Your task to perform on an android device: Open notification settings Image 0: 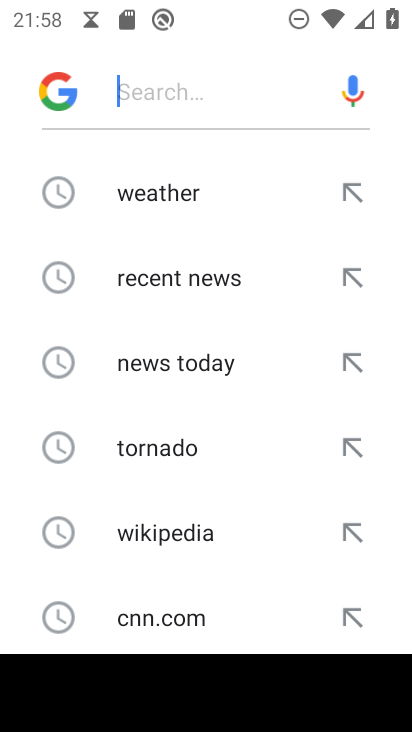
Step 0: press home button
Your task to perform on an android device: Open notification settings Image 1: 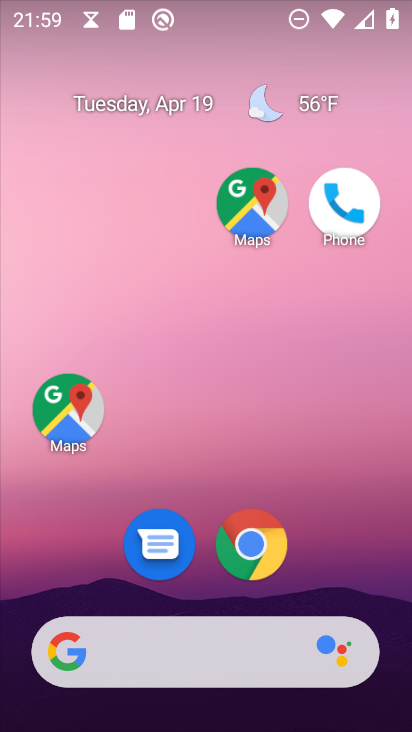
Step 1: drag from (174, 630) to (350, 70)
Your task to perform on an android device: Open notification settings Image 2: 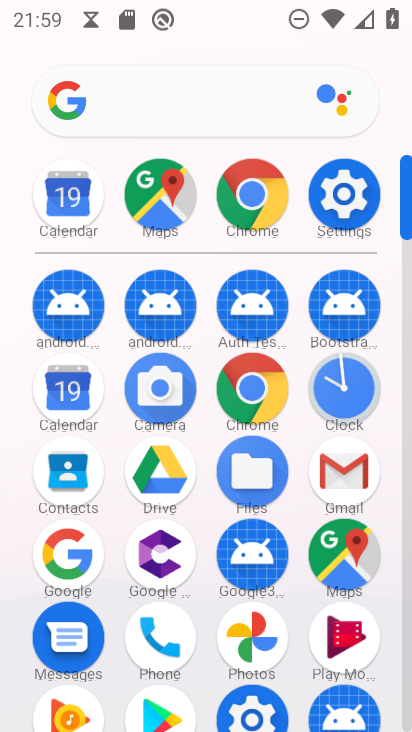
Step 2: click (337, 201)
Your task to perform on an android device: Open notification settings Image 3: 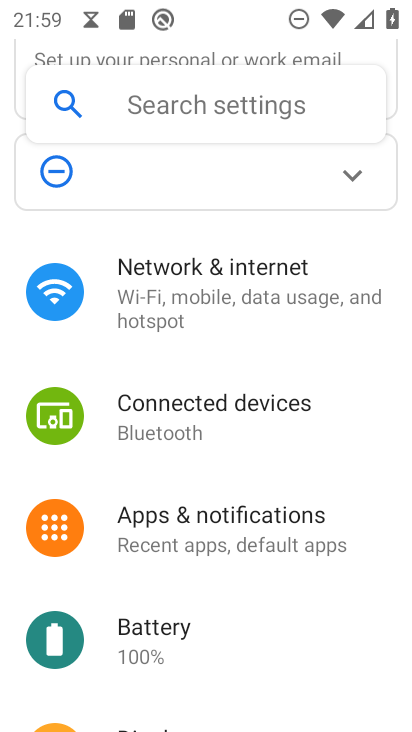
Step 3: click (224, 522)
Your task to perform on an android device: Open notification settings Image 4: 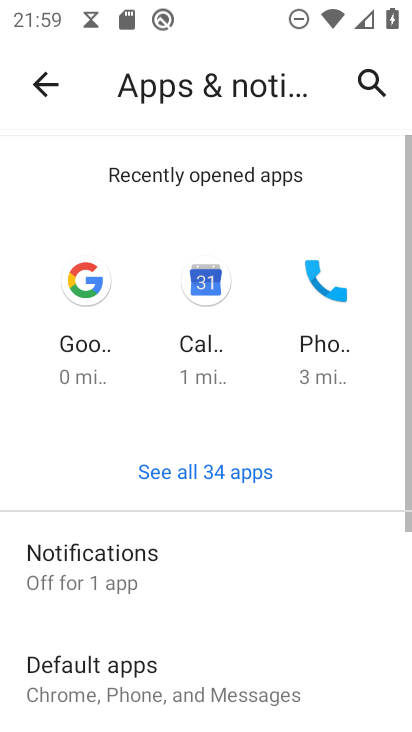
Step 4: drag from (180, 563) to (300, 124)
Your task to perform on an android device: Open notification settings Image 5: 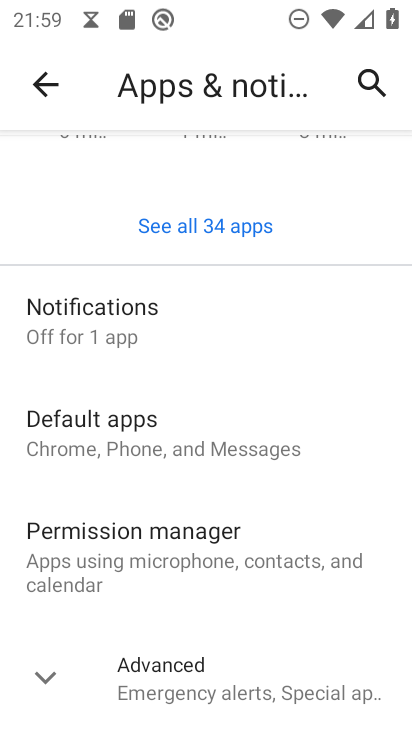
Step 5: click (69, 321)
Your task to perform on an android device: Open notification settings Image 6: 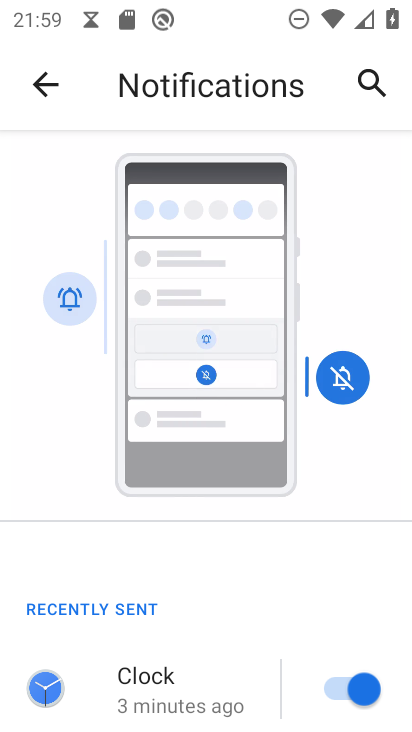
Step 6: task complete